Your task to perform on an android device: move an email to a new category in the gmail app Image 0: 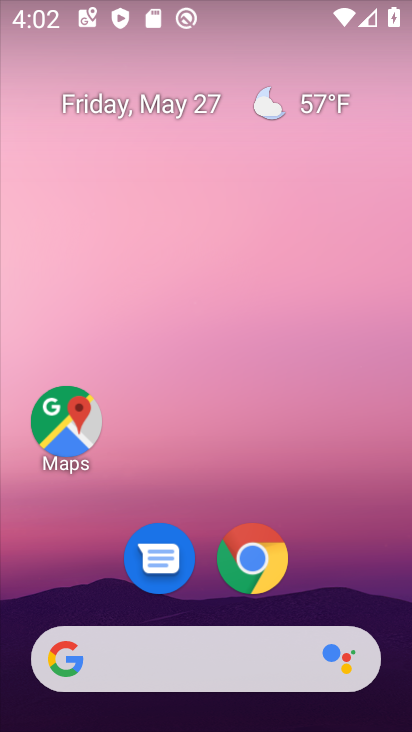
Step 0: drag from (336, 583) to (341, 115)
Your task to perform on an android device: move an email to a new category in the gmail app Image 1: 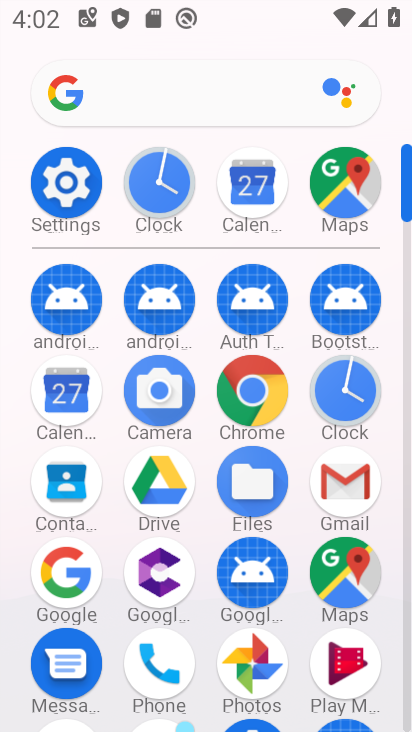
Step 1: click (348, 489)
Your task to perform on an android device: move an email to a new category in the gmail app Image 2: 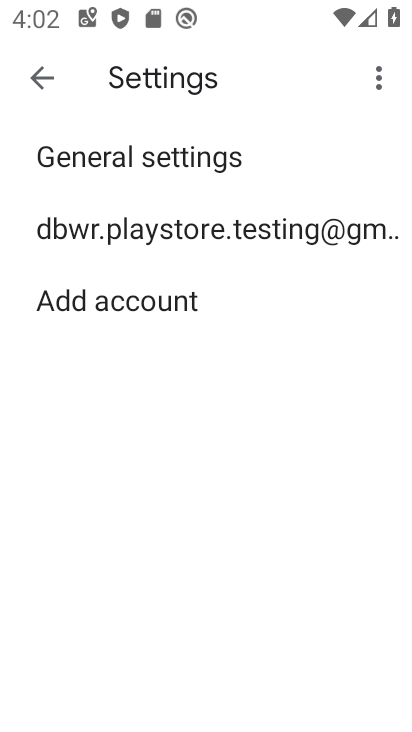
Step 2: click (51, 73)
Your task to perform on an android device: move an email to a new category in the gmail app Image 3: 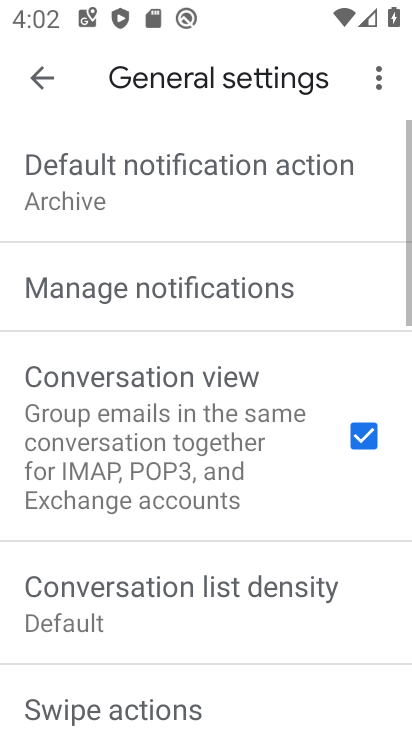
Step 3: task complete